Your task to perform on an android device: toggle priority inbox in the gmail app Image 0: 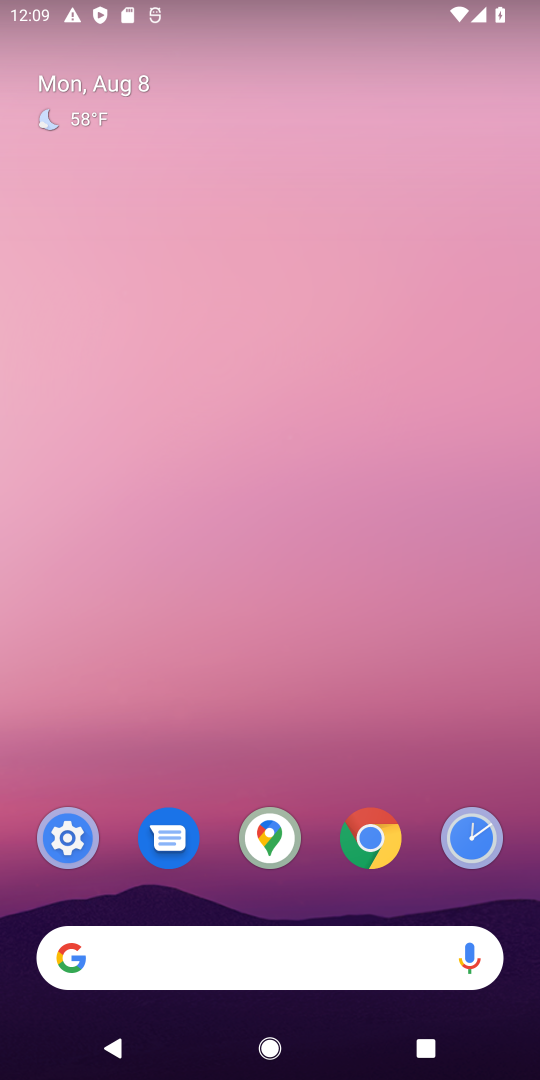
Step 0: press home button
Your task to perform on an android device: toggle priority inbox in the gmail app Image 1: 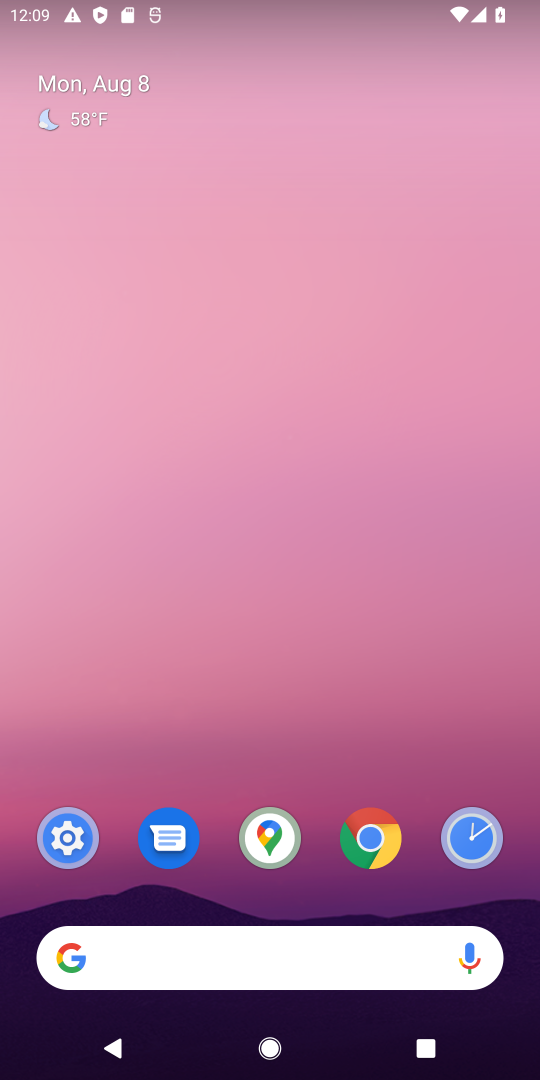
Step 1: drag from (320, 897) to (387, 118)
Your task to perform on an android device: toggle priority inbox in the gmail app Image 2: 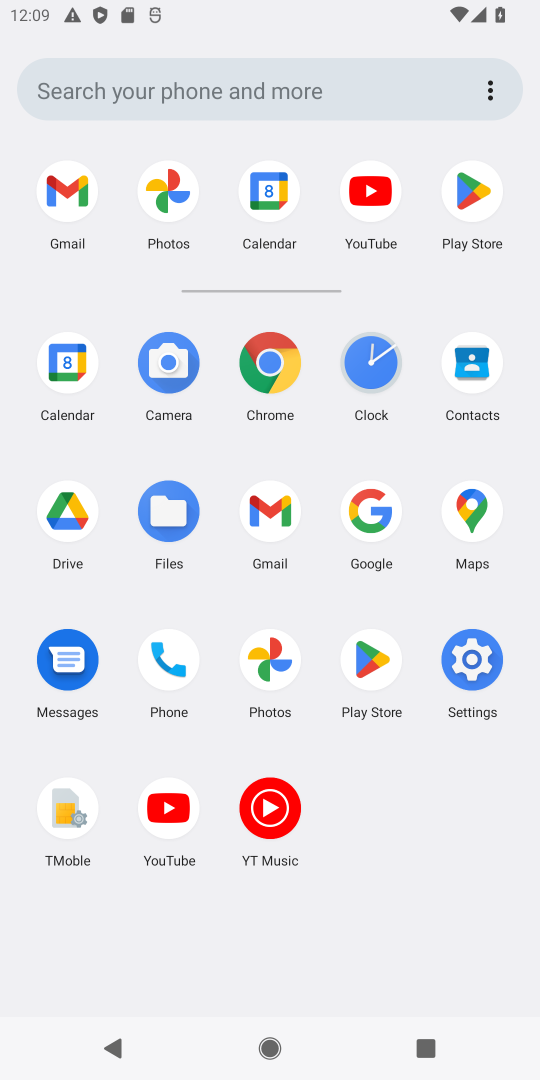
Step 2: click (67, 184)
Your task to perform on an android device: toggle priority inbox in the gmail app Image 3: 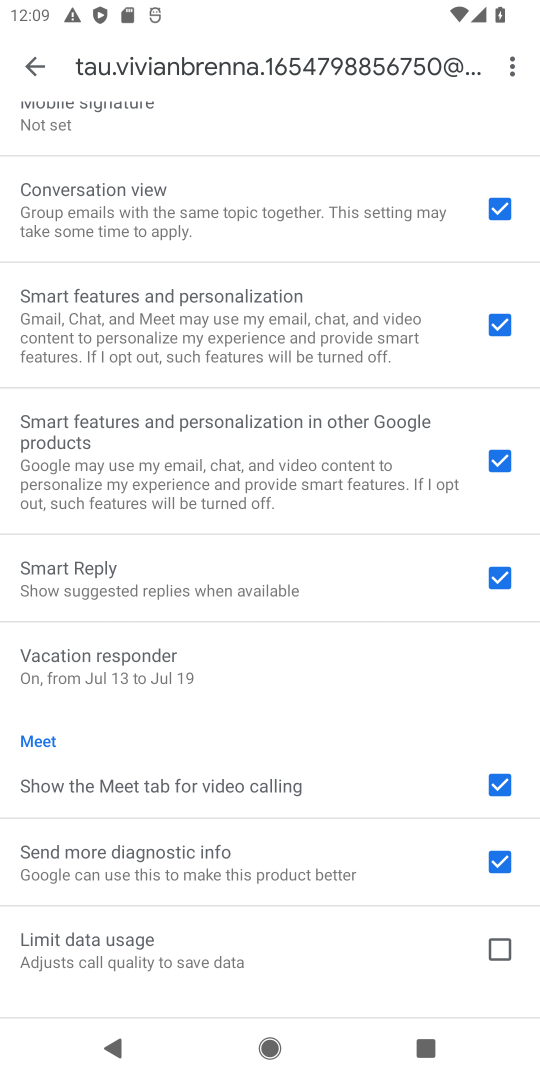
Step 3: drag from (295, 215) to (169, 997)
Your task to perform on an android device: toggle priority inbox in the gmail app Image 4: 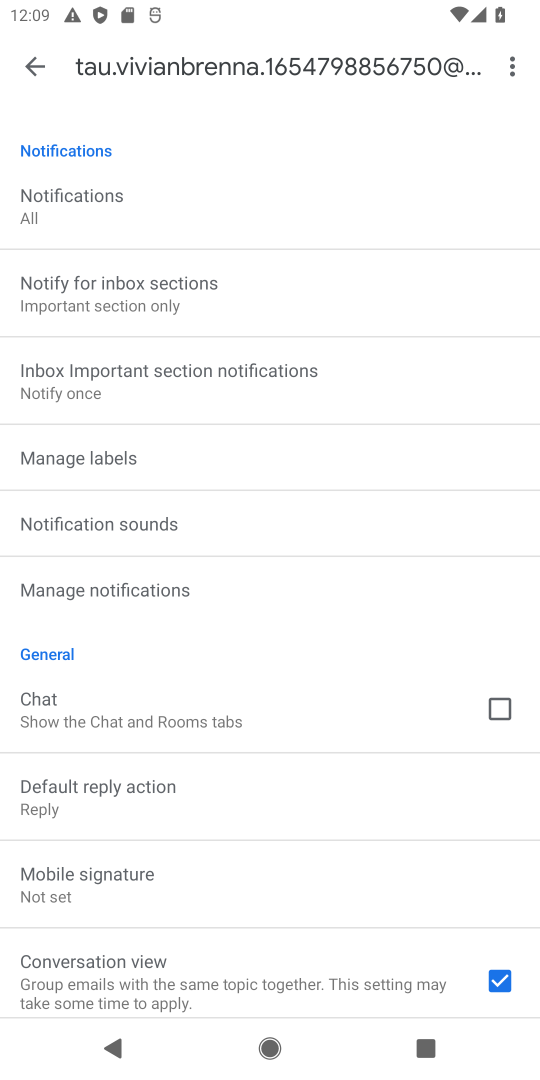
Step 4: drag from (345, 136) to (278, 965)
Your task to perform on an android device: toggle priority inbox in the gmail app Image 5: 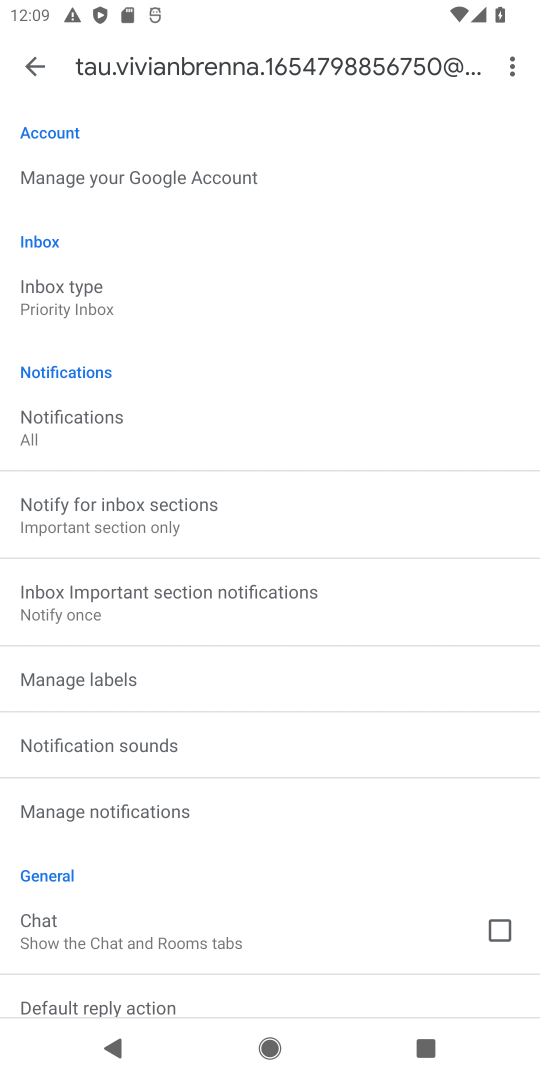
Step 5: click (39, 291)
Your task to perform on an android device: toggle priority inbox in the gmail app Image 6: 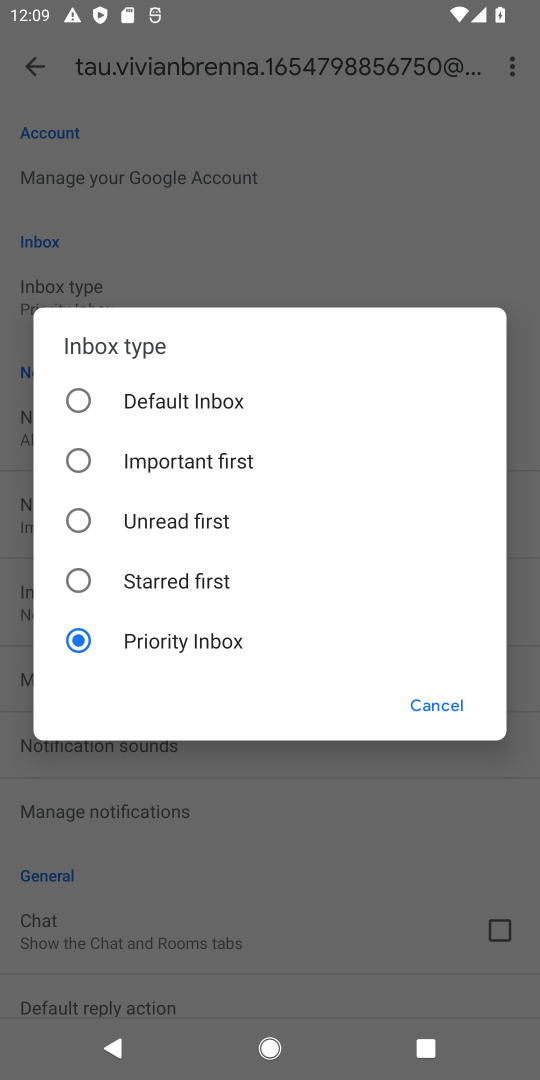
Step 6: click (78, 394)
Your task to perform on an android device: toggle priority inbox in the gmail app Image 7: 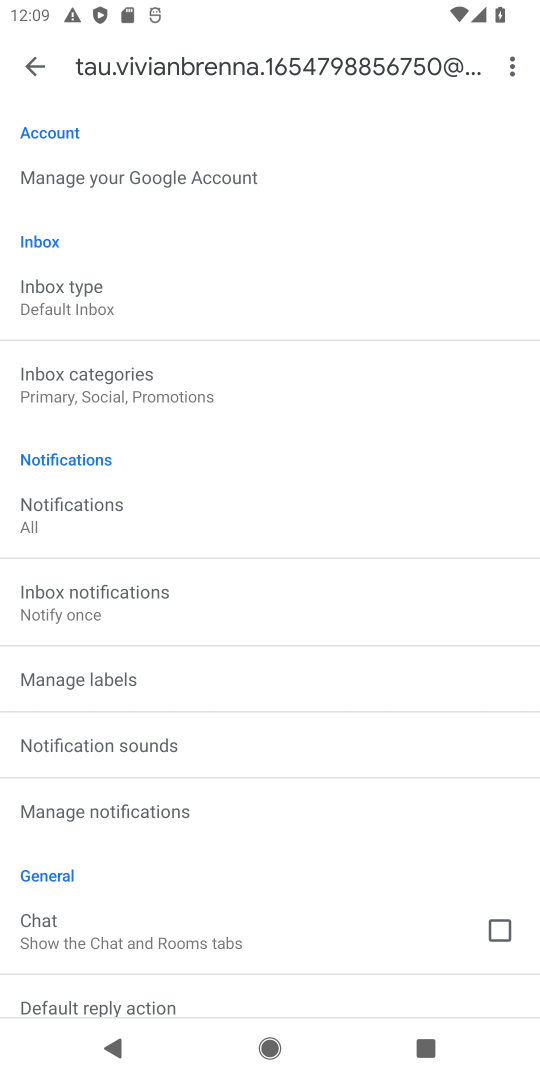
Step 7: task complete